Your task to perform on an android device: all mails in gmail Image 0: 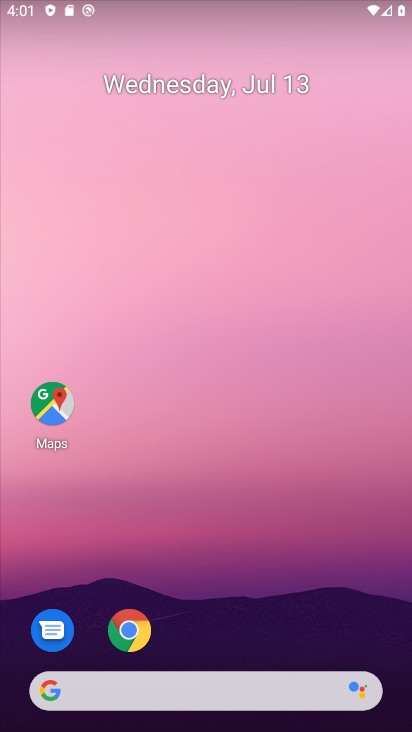
Step 0: press home button
Your task to perform on an android device: all mails in gmail Image 1: 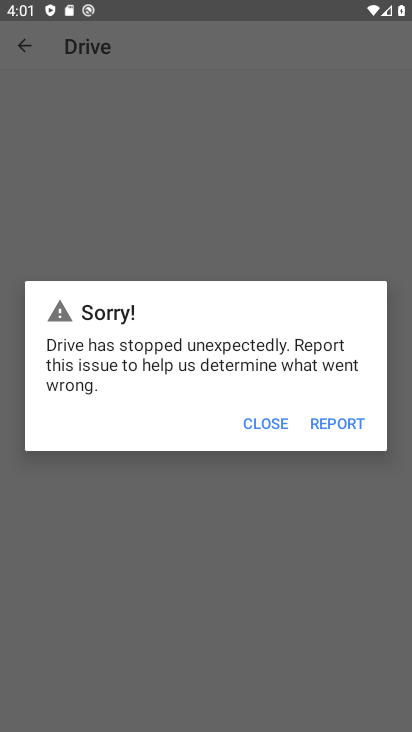
Step 1: press home button
Your task to perform on an android device: all mails in gmail Image 2: 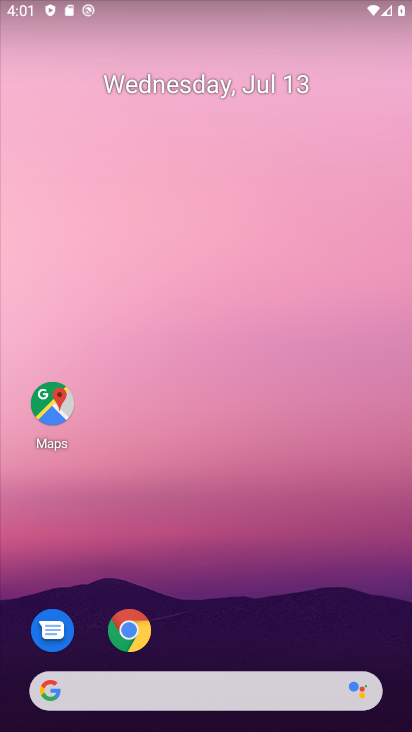
Step 2: drag from (247, 604) to (262, 149)
Your task to perform on an android device: all mails in gmail Image 3: 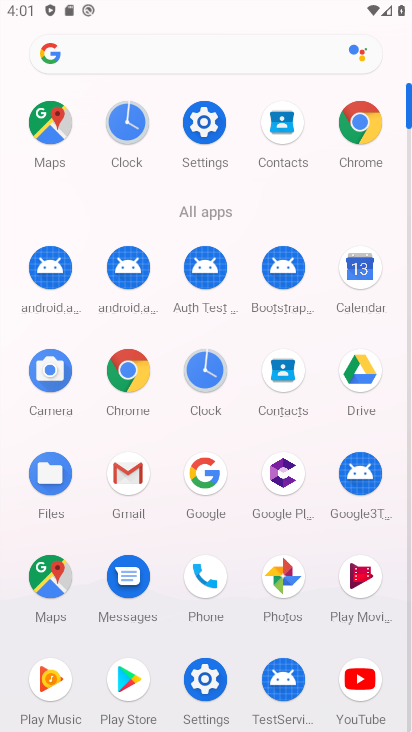
Step 3: click (120, 477)
Your task to perform on an android device: all mails in gmail Image 4: 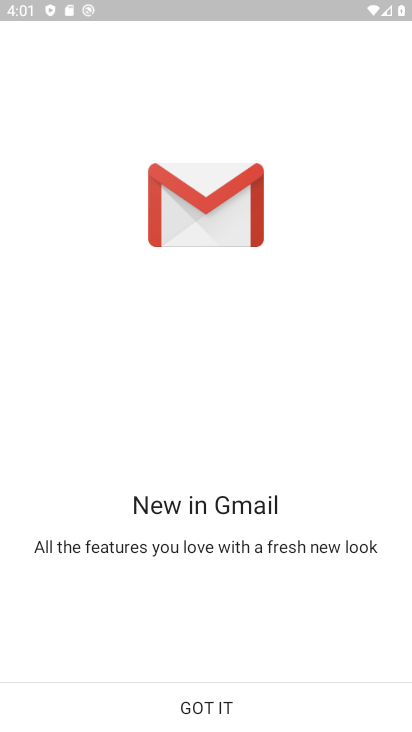
Step 4: click (220, 702)
Your task to perform on an android device: all mails in gmail Image 5: 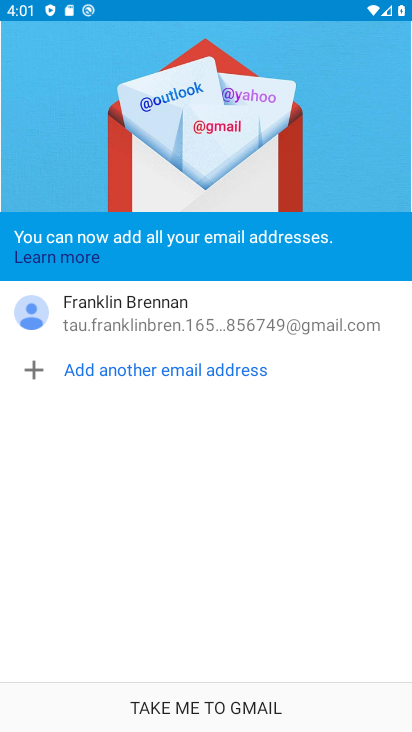
Step 5: click (175, 719)
Your task to perform on an android device: all mails in gmail Image 6: 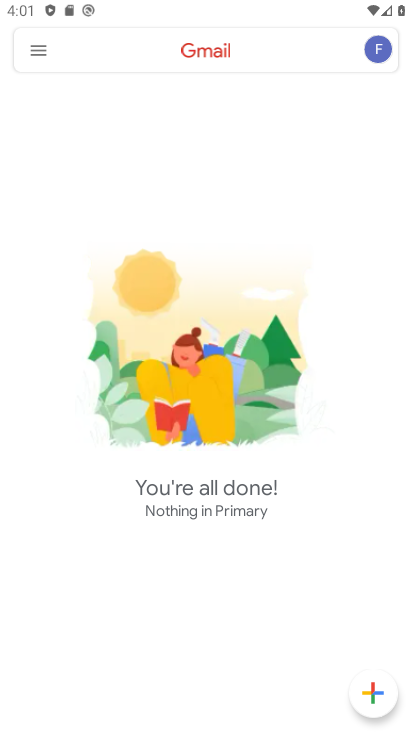
Step 6: click (38, 56)
Your task to perform on an android device: all mails in gmail Image 7: 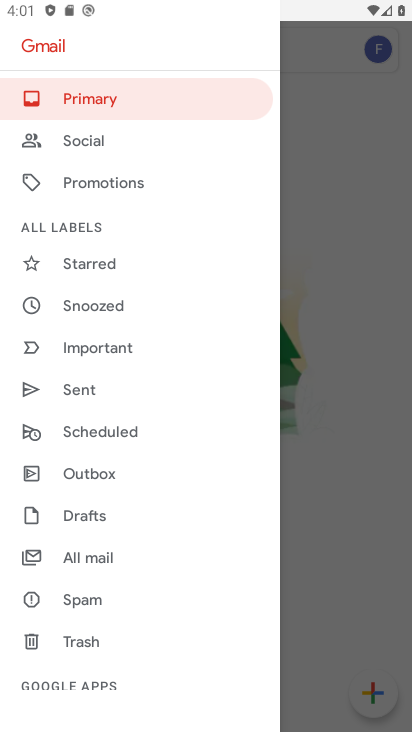
Step 7: click (82, 562)
Your task to perform on an android device: all mails in gmail Image 8: 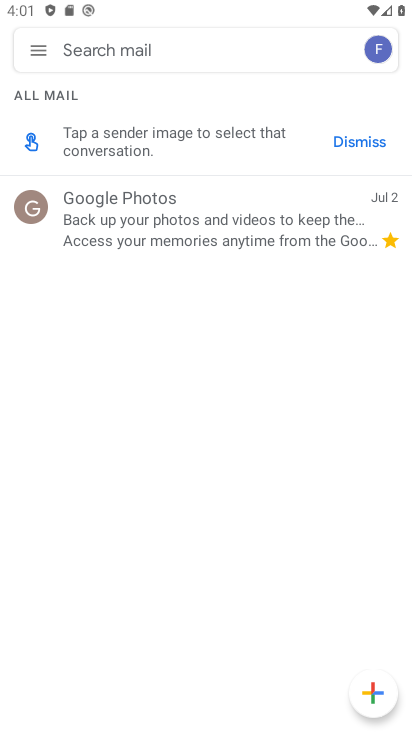
Step 8: task complete